Your task to perform on an android device: change the clock display to analog Image 0: 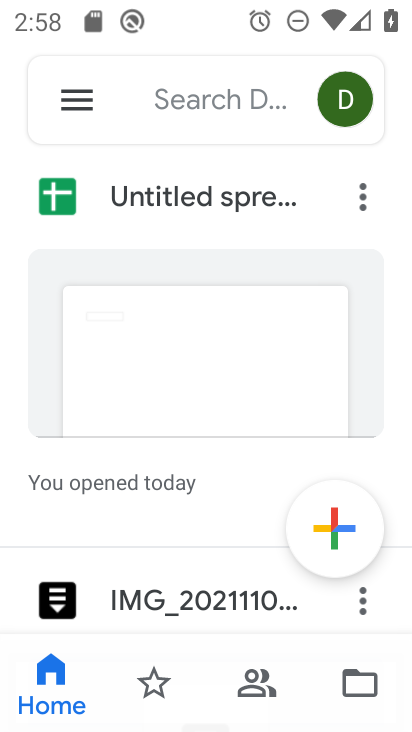
Step 0: press back button
Your task to perform on an android device: change the clock display to analog Image 1: 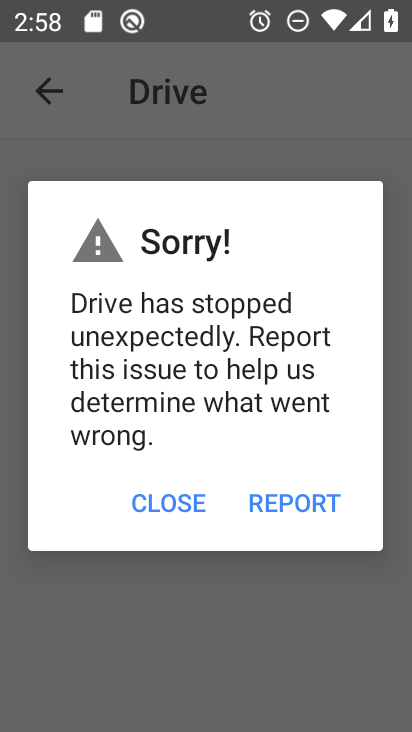
Step 1: press home button
Your task to perform on an android device: change the clock display to analog Image 2: 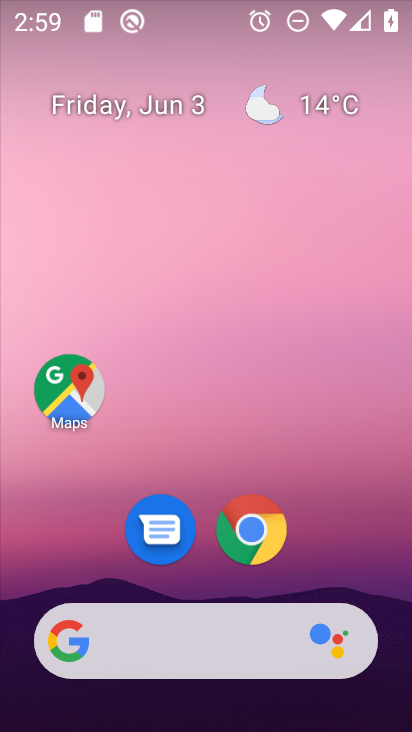
Step 2: drag from (339, 554) to (342, 215)
Your task to perform on an android device: change the clock display to analog Image 3: 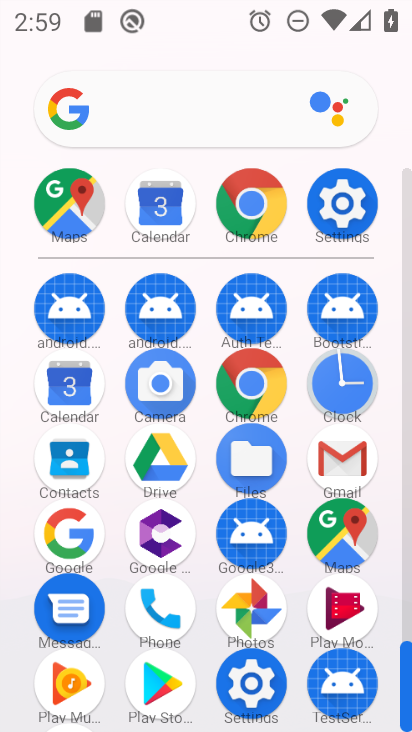
Step 3: click (344, 403)
Your task to perform on an android device: change the clock display to analog Image 4: 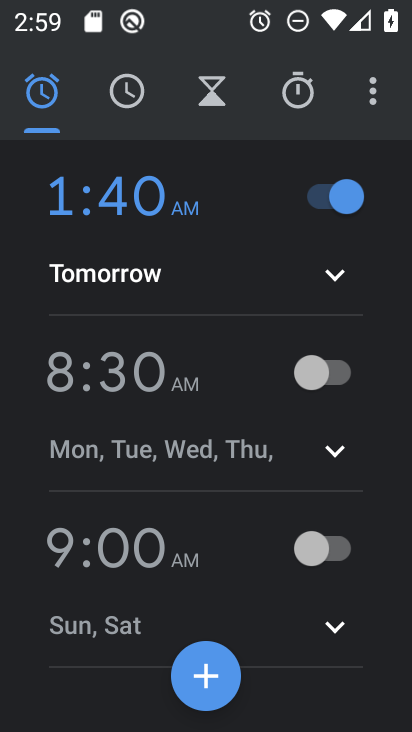
Step 4: click (374, 106)
Your task to perform on an android device: change the clock display to analog Image 5: 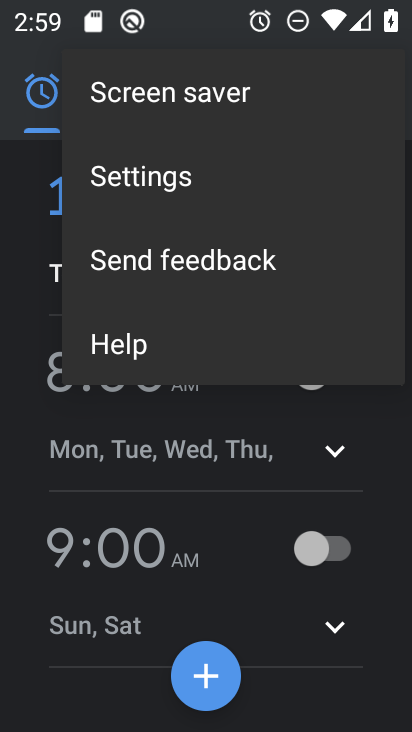
Step 5: click (200, 197)
Your task to perform on an android device: change the clock display to analog Image 6: 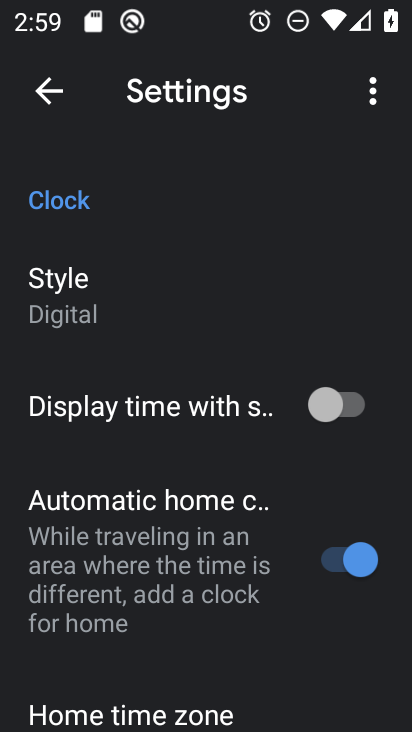
Step 6: click (89, 311)
Your task to perform on an android device: change the clock display to analog Image 7: 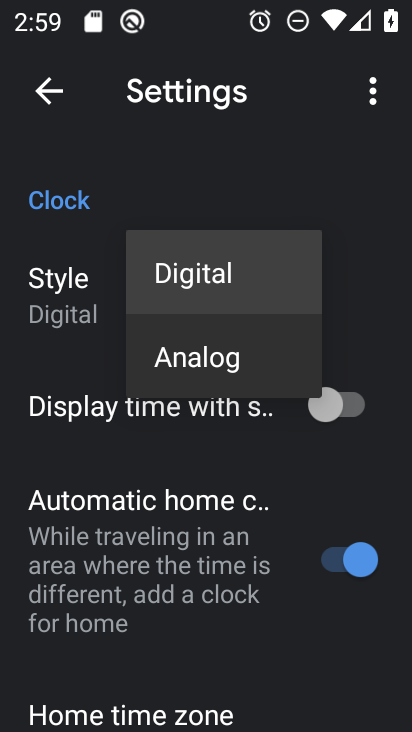
Step 7: click (208, 362)
Your task to perform on an android device: change the clock display to analog Image 8: 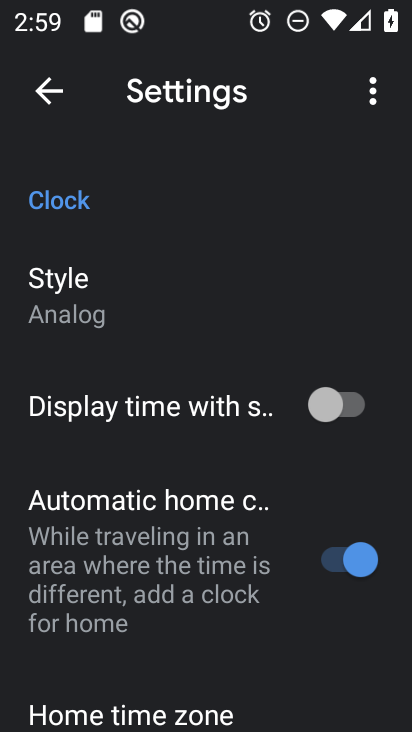
Step 8: task complete